Your task to perform on an android device: Clear the cart on ebay. Add apple airpods to the cart on ebay Image 0: 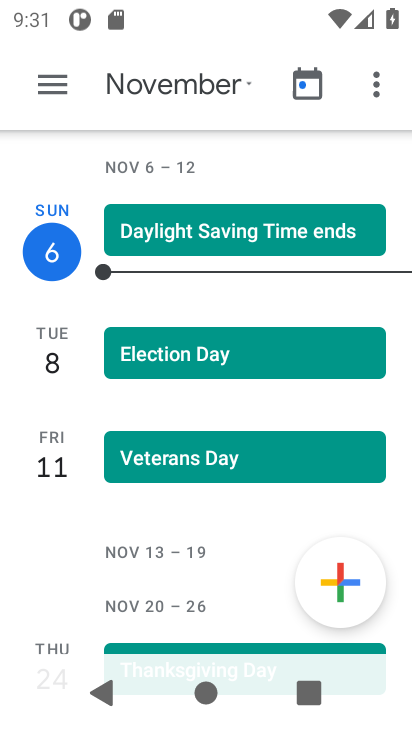
Step 0: press home button
Your task to perform on an android device: Clear the cart on ebay. Add apple airpods to the cart on ebay Image 1: 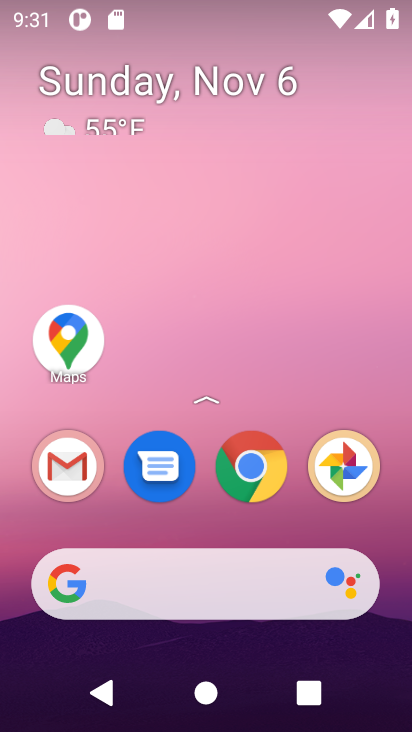
Step 1: click (259, 464)
Your task to perform on an android device: Clear the cart on ebay. Add apple airpods to the cart on ebay Image 2: 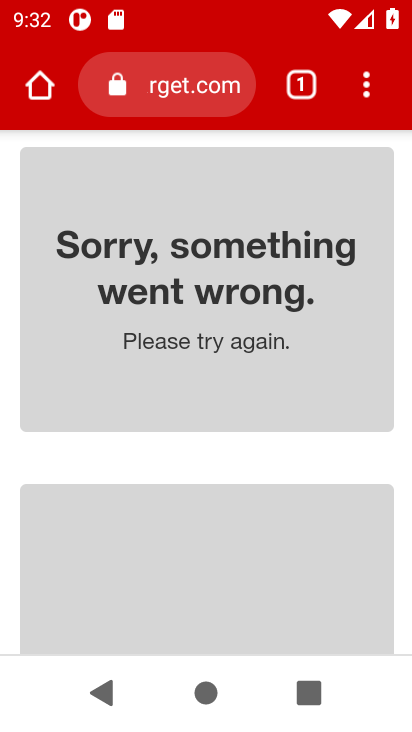
Step 2: click (282, 75)
Your task to perform on an android device: Clear the cart on ebay. Add apple airpods to the cart on ebay Image 3: 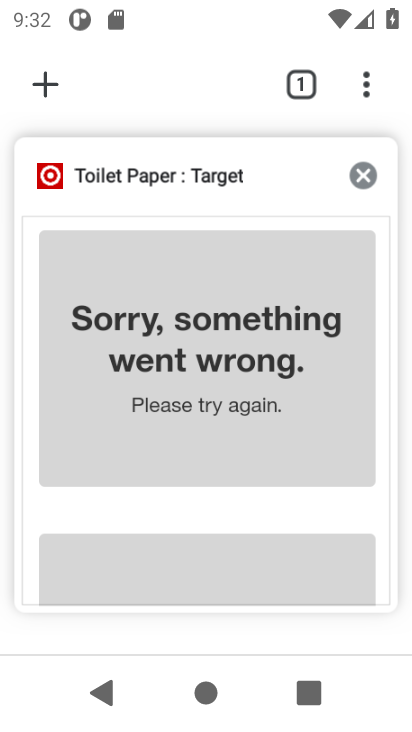
Step 3: click (50, 76)
Your task to perform on an android device: Clear the cart on ebay. Add apple airpods to the cart on ebay Image 4: 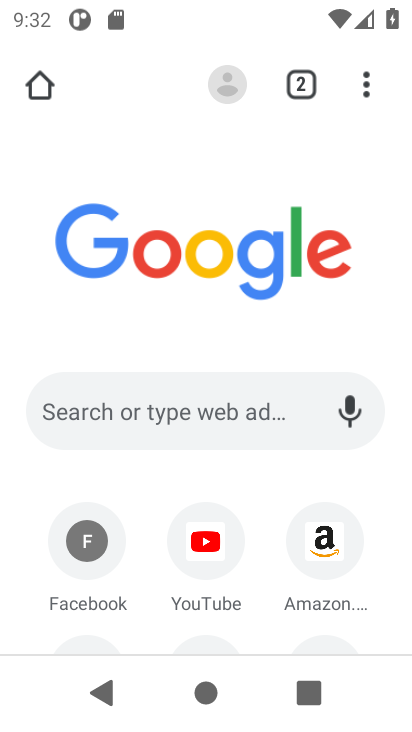
Step 4: click (164, 407)
Your task to perform on an android device: Clear the cart on ebay. Add apple airpods to the cart on ebay Image 5: 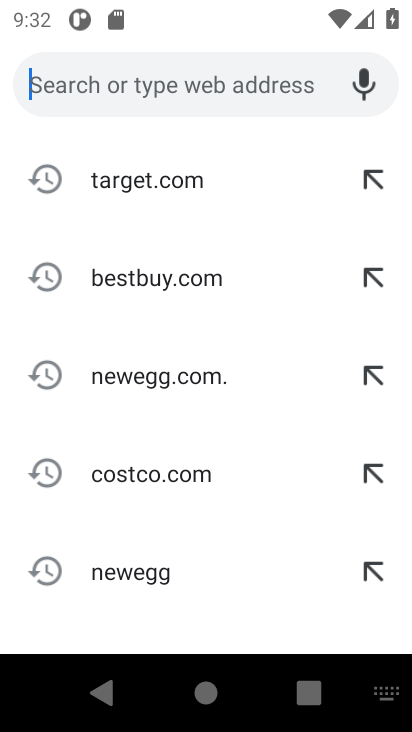
Step 5: click (127, 87)
Your task to perform on an android device: Clear the cart on ebay. Add apple airpods to the cart on ebay Image 6: 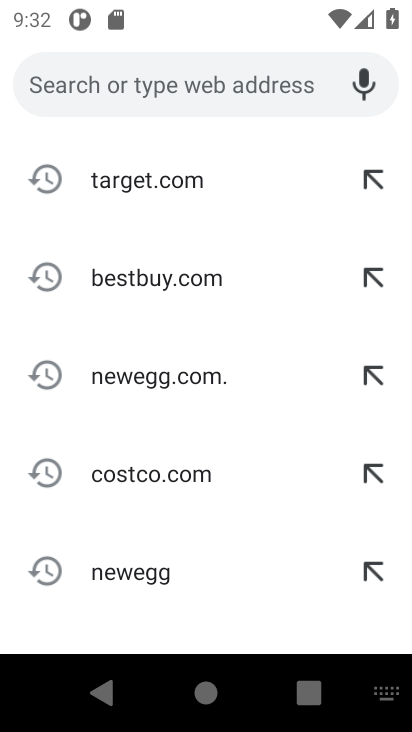
Step 6: type "ebay"
Your task to perform on an android device: Clear the cart on ebay. Add apple airpods to the cart on ebay Image 7: 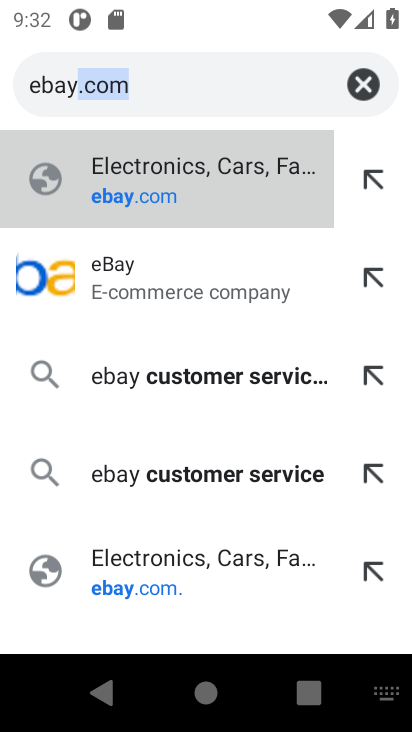
Step 7: click (228, 187)
Your task to perform on an android device: Clear the cart on ebay. Add apple airpods to the cart on ebay Image 8: 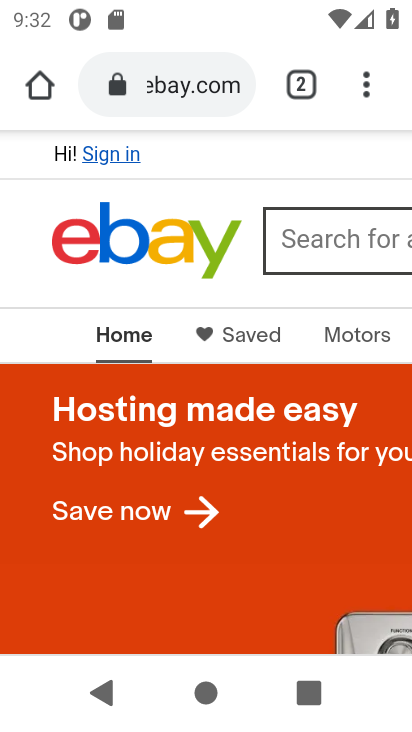
Step 8: drag from (201, 539) to (312, 158)
Your task to perform on an android device: Clear the cart on ebay. Add apple airpods to the cart on ebay Image 9: 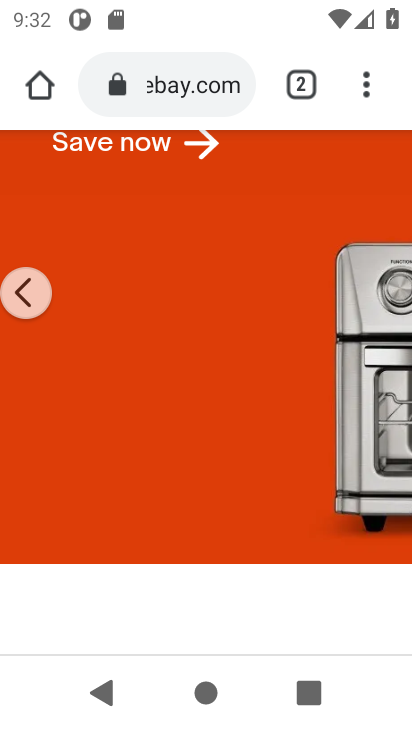
Step 9: drag from (214, 546) to (237, 176)
Your task to perform on an android device: Clear the cart on ebay. Add apple airpods to the cart on ebay Image 10: 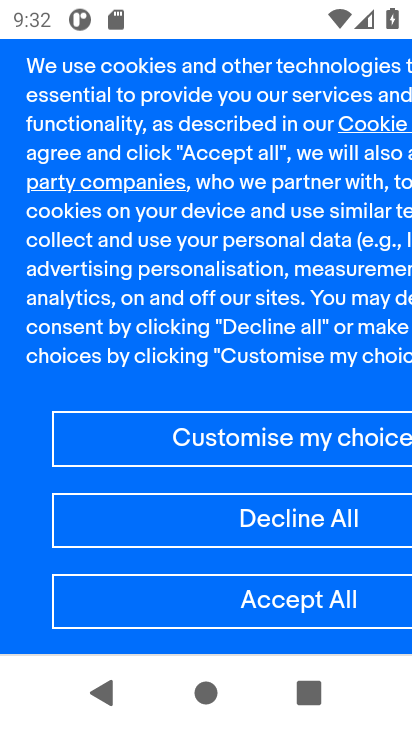
Step 10: drag from (204, 578) to (206, 129)
Your task to perform on an android device: Clear the cart on ebay. Add apple airpods to the cart on ebay Image 11: 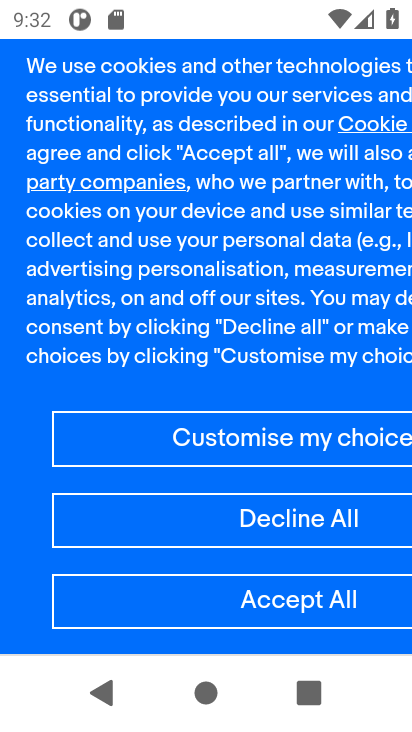
Step 11: click (261, 602)
Your task to perform on an android device: Clear the cart on ebay. Add apple airpods to the cart on ebay Image 12: 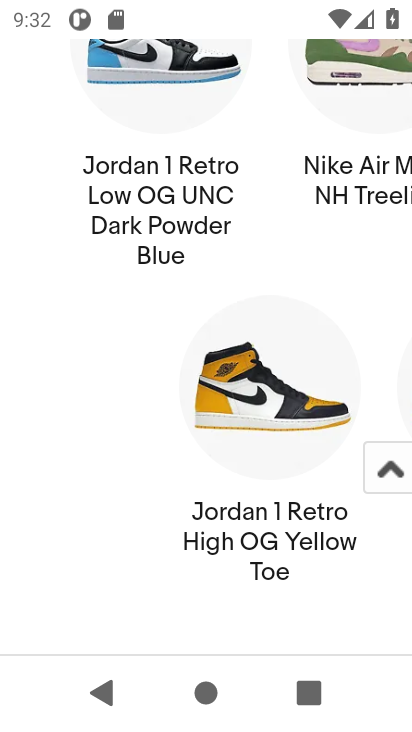
Step 12: drag from (271, 144) to (147, 716)
Your task to perform on an android device: Clear the cart on ebay. Add apple airpods to the cart on ebay Image 13: 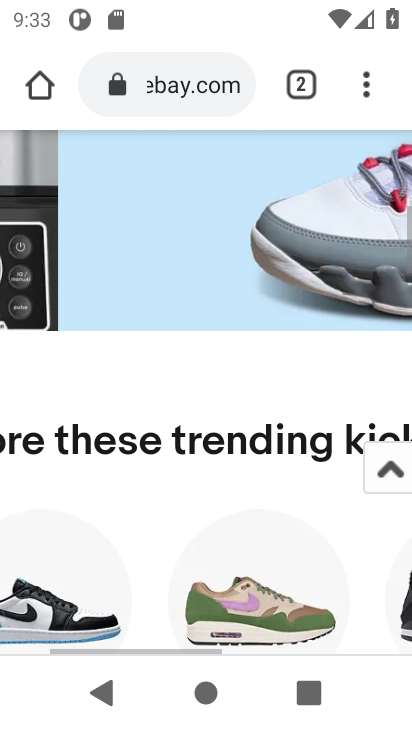
Step 13: drag from (223, 202) to (211, 711)
Your task to perform on an android device: Clear the cart on ebay. Add apple airpods to the cart on ebay Image 14: 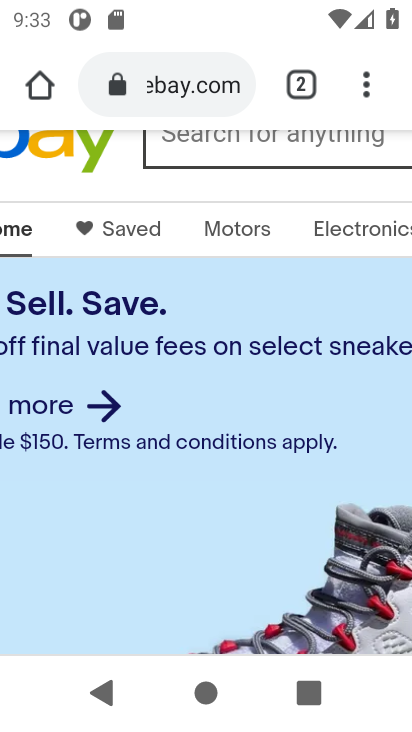
Step 14: drag from (263, 353) to (263, 644)
Your task to perform on an android device: Clear the cart on ebay. Add apple airpods to the cart on ebay Image 15: 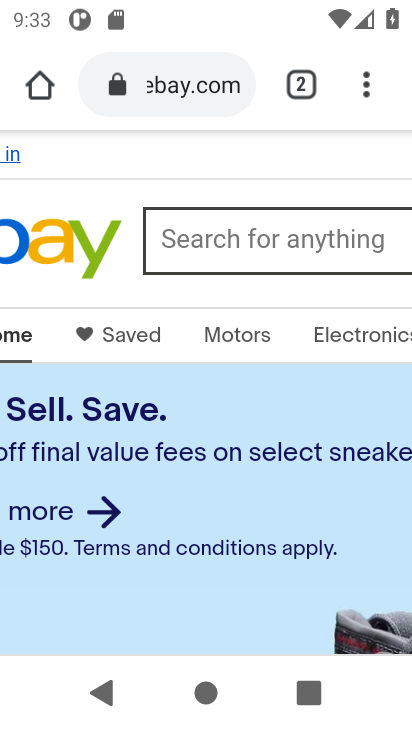
Step 15: click (250, 244)
Your task to perform on an android device: Clear the cart on ebay. Add apple airpods to the cart on ebay Image 16: 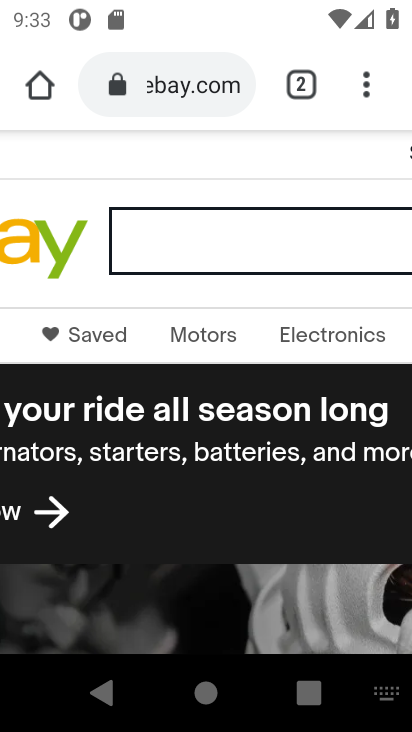
Step 16: click (177, 249)
Your task to perform on an android device: Clear the cart on ebay. Add apple airpods to the cart on ebay Image 17: 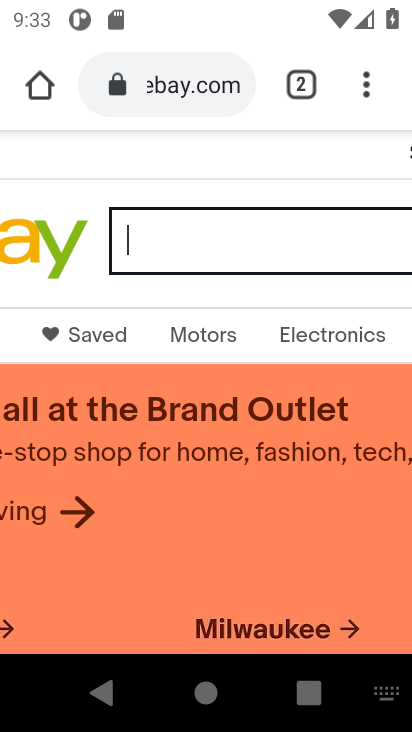
Step 17: type " apple airpods"
Your task to perform on an android device: Clear the cart on ebay. Add apple airpods to the cart on ebay Image 18: 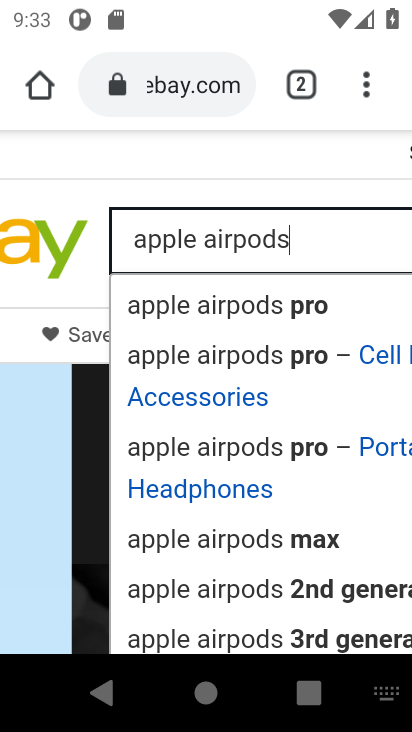
Step 18: click (278, 308)
Your task to perform on an android device: Clear the cart on ebay. Add apple airpods to the cart on ebay Image 19: 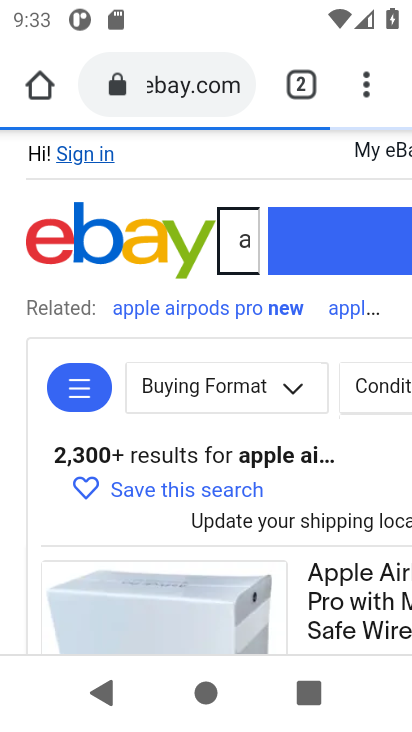
Step 19: drag from (213, 630) to (253, 356)
Your task to perform on an android device: Clear the cart on ebay. Add apple airpods to the cart on ebay Image 20: 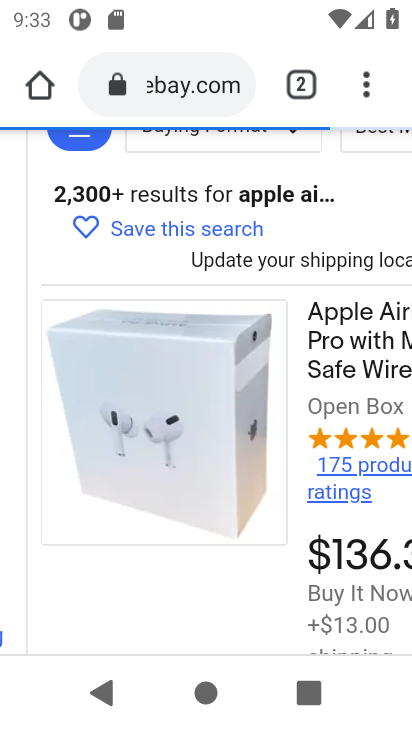
Step 20: drag from (263, 455) to (121, 371)
Your task to perform on an android device: Clear the cart on ebay. Add apple airpods to the cart on ebay Image 21: 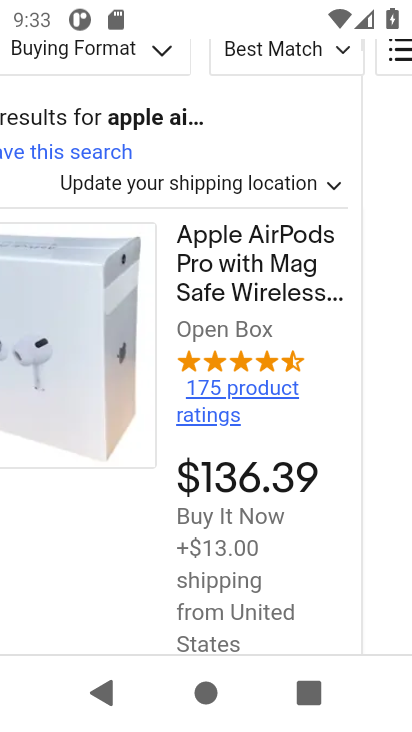
Step 21: click (252, 242)
Your task to perform on an android device: Clear the cart on ebay. Add apple airpods to the cart on ebay Image 22: 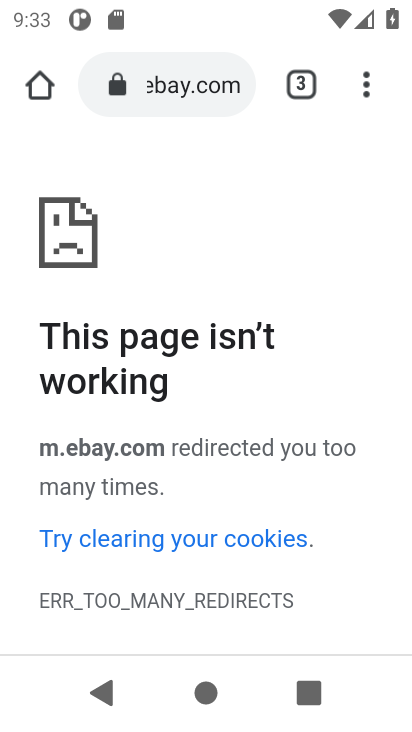
Step 22: task complete